Your task to perform on an android device: turn on priority inbox in the gmail app Image 0: 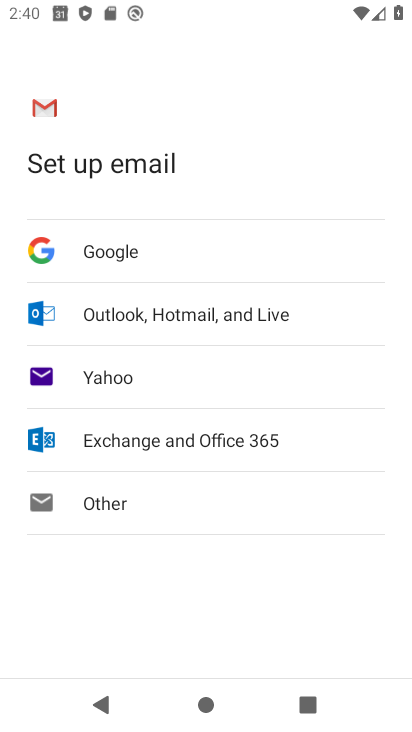
Step 0: press home button
Your task to perform on an android device: turn on priority inbox in the gmail app Image 1: 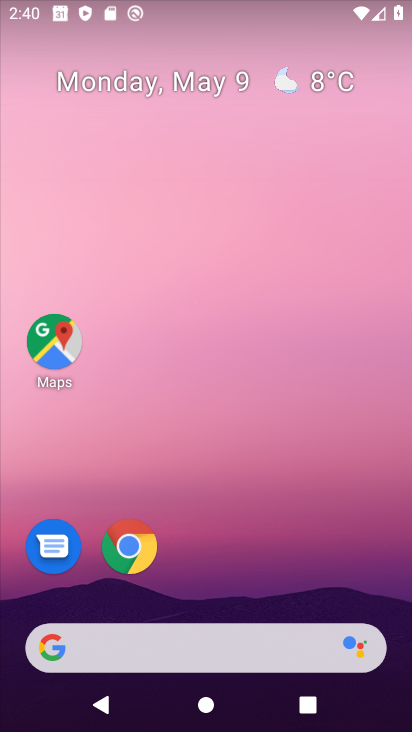
Step 1: drag from (256, 533) to (241, 19)
Your task to perform on an android device: turn on priority inbox in the gmail app Image 2: 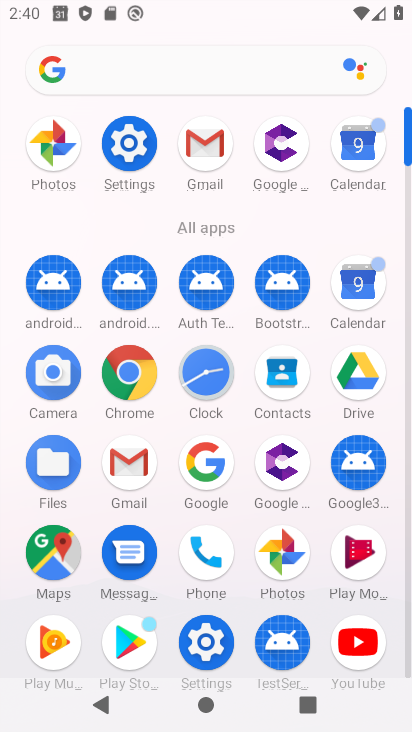
Step 2: click (185, 152)
Your task to perform on an android device: turn on priority inbox in the gmail app Image 3: 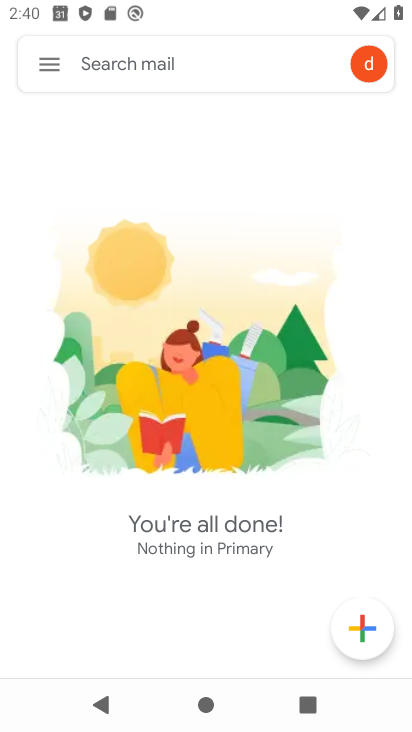
Step 3: click (48, 48)
Your task to perform on an android device: turn on priority inbox in the gmail app Image 4: 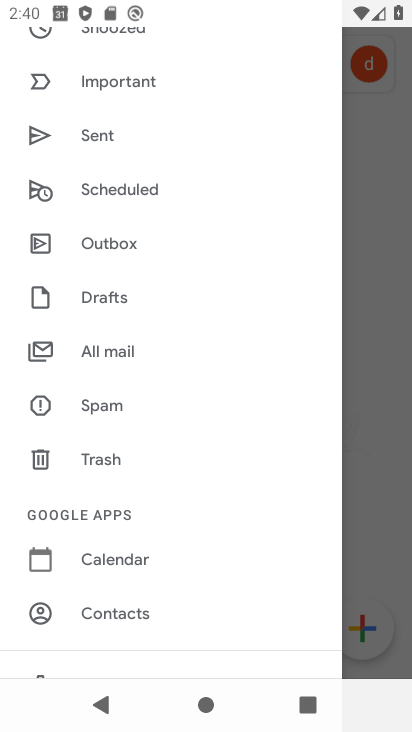
Step 4: drag from (141, 588) to (176, 355)
Your task to perform on an android device: turn on priority inbox in the gmail app Image 5: 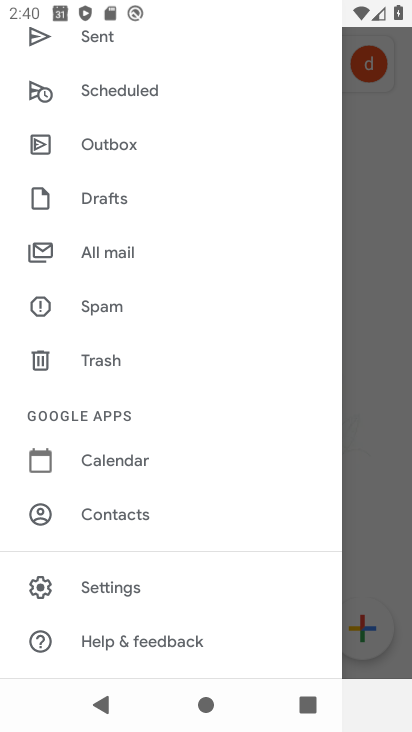
Step 5: click (125, 580)
Your task to perform on an android device: turn on priority inbox in the gmail app Image 6: 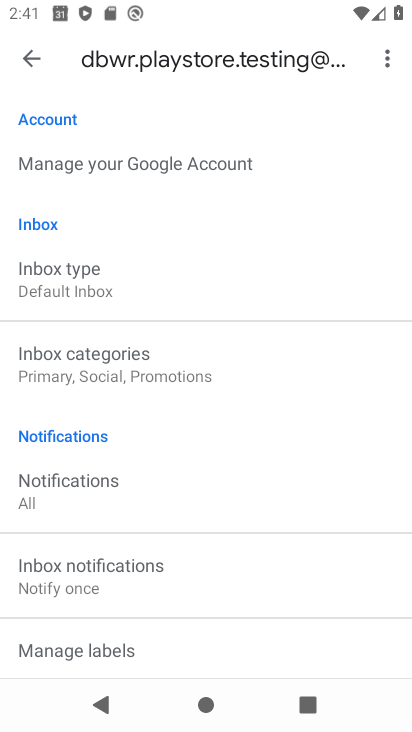
Step 6: click (88, 279)
Your task to perform on an android device: turn on priority inbox in the gmail app Image 7: 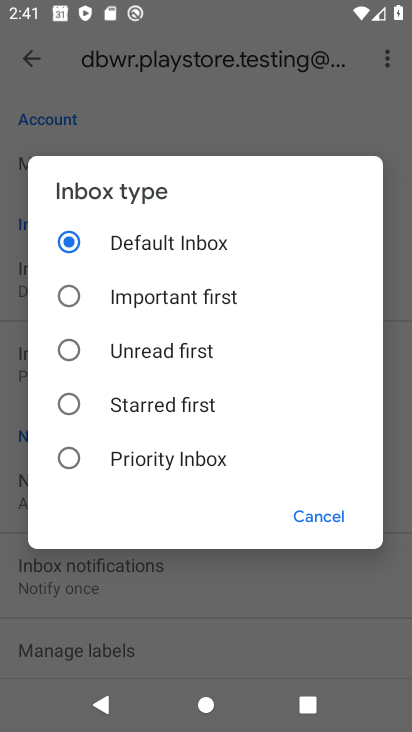
Step 7: click (78, 453)
Your task to perform on an android device: turn on priority inbox in the gmail app Image 8: 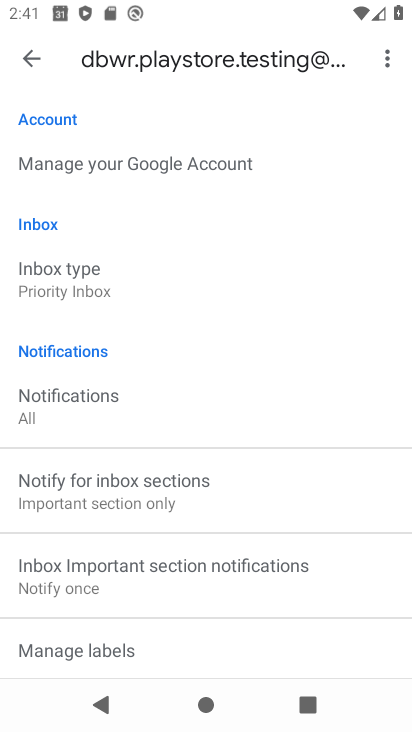
Step 8: task complete